Your task to perform on an android device: toggle translation in the chrome app Image 0: 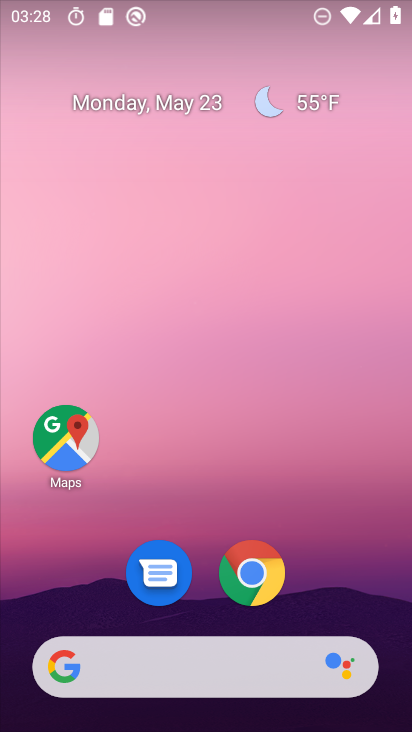
Step 0: click (258, 571)
Your task to perform on an android device: toggle translation in the chrome app Image 1: 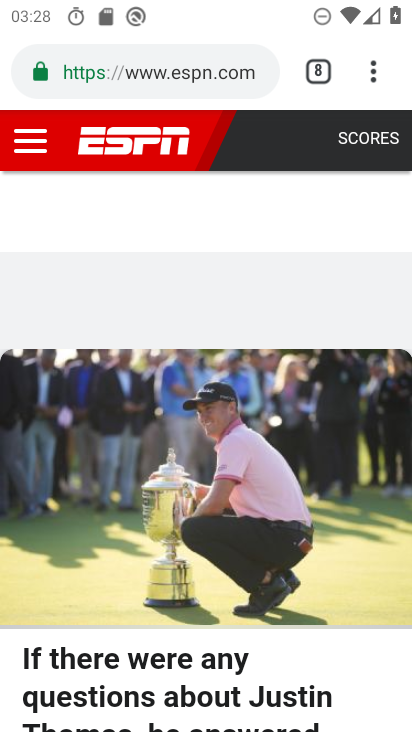
Step 1: click (379, 67)
Your task to perform on an android device: toggle translation in the chrome app Image 2: 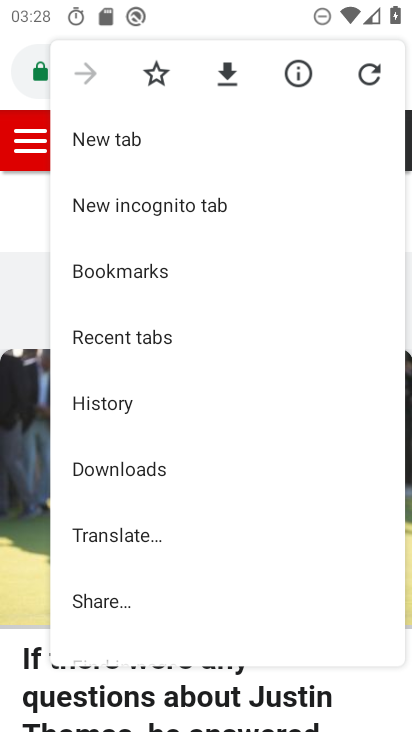
Step 2: drag from (223, 561) to (208, 225)
Your task to perform on an android device: toggle translation in the chrome app Image 3: 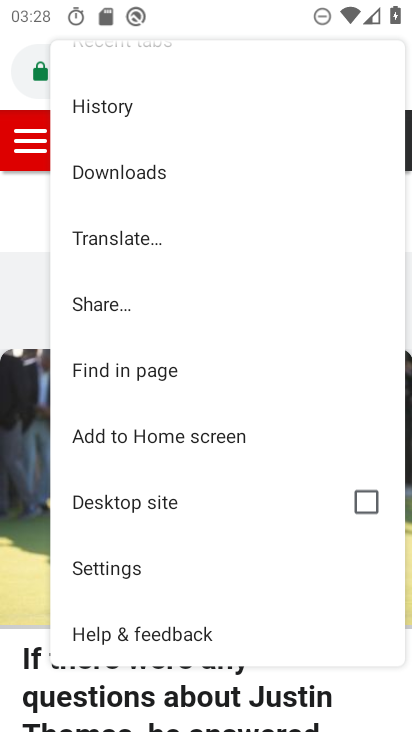
Step 3: click (136, 574)
Your task to perform on an android device: toggle translation in the chrome app Image 4: 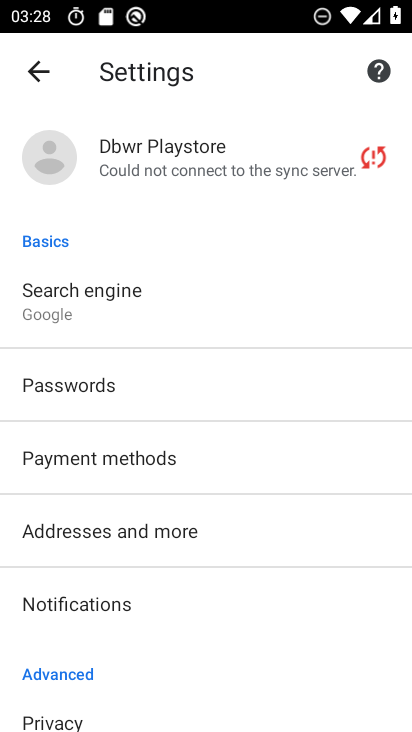
Step 4: drag from (219, 650) to (224, 287)
Your task to perform on an android device: toggle translation in the chrome app Image 5: 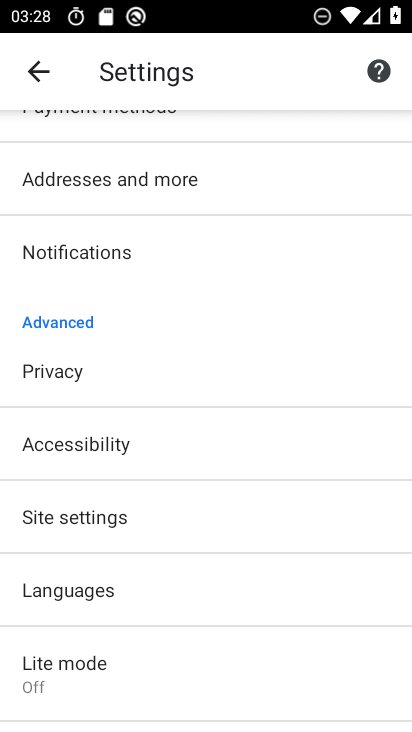
Step 5: click (122, 588)
Your task to perform on an android device: toggle translation in the chrome app Image 6: 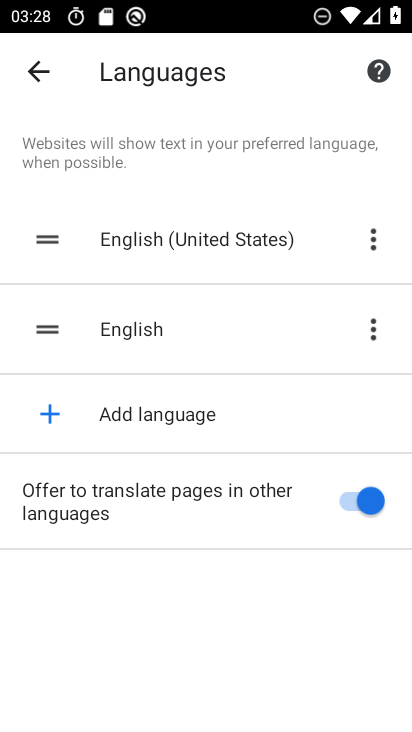
Step 6: click (346, 497)
Your task to perform on an android device: toggle translation in the chrome app Image 7: 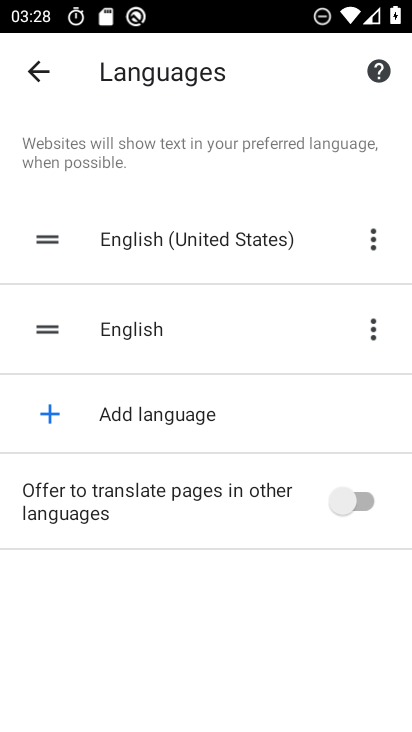
Step 7: task complete